Your task to perform on an android device: Show me popular games on the Play Store Image 0: 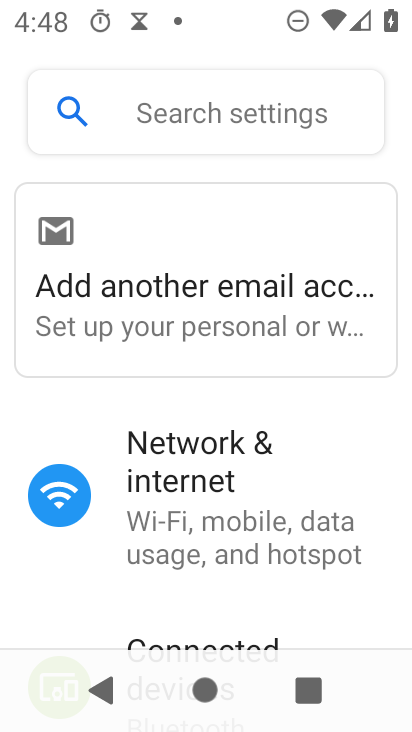
Step 0: press home button
Your task to perform on an android device: Show me popular games on the Play Store Image 1: 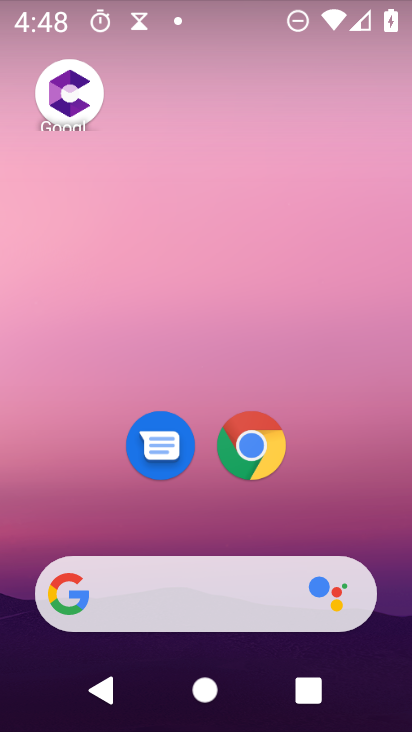
Step 1: drag from (240, 535) to (259, 22)
Your task to perform on an android device: Show me popular games on the Play Store Image 2: 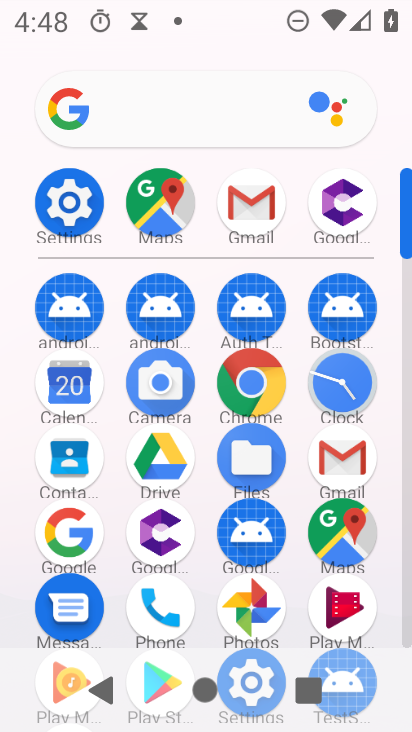
Step 2: drag from (213, 452) to (232, 170)
Your task to perform on an android device: Show me popular games on the Play Store Image 3: 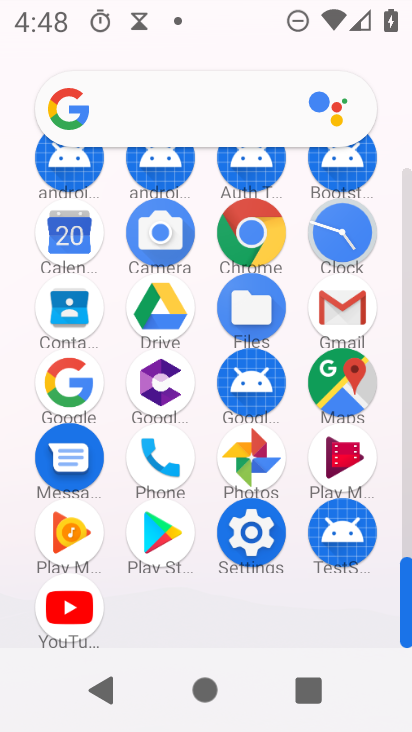
Step 3: click (160, 531)
Your task to perform on an android device: Show me popular games on the Play Store Image 4: 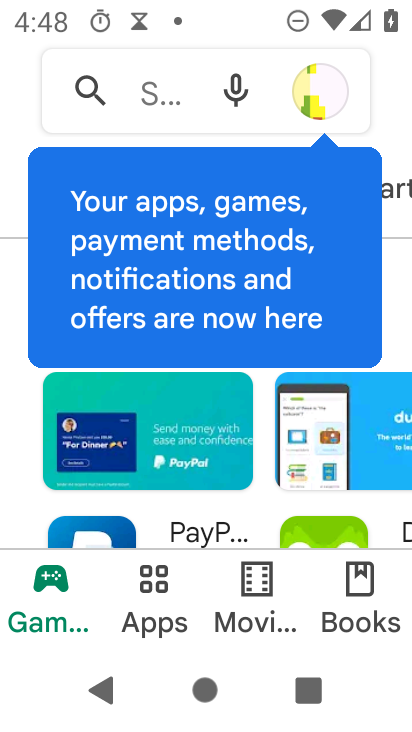
Step 4: click (188, 92)
Your task to perform on an android device: Show me popular games on the Play Store Image 5: 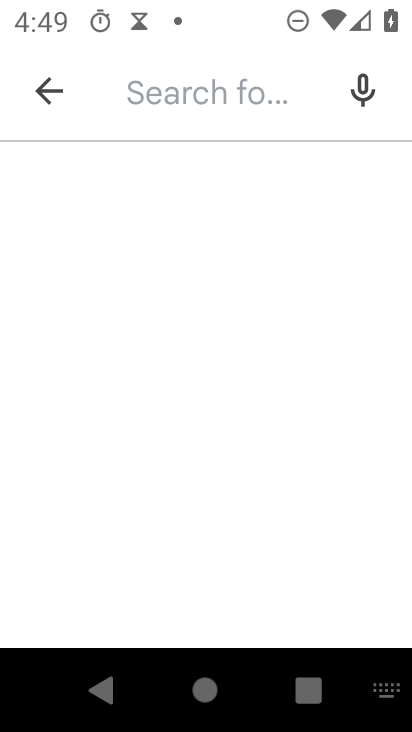
Step 5: type "popular"
Your task to perform on an android device: Show me popular games on the Play Store Image 6: 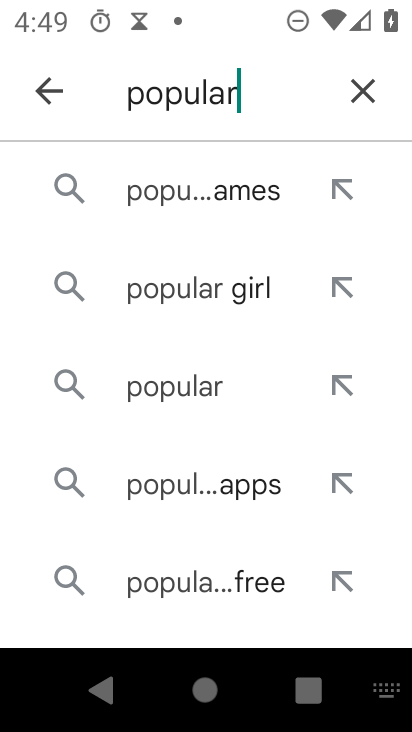
Step 6: click (232, 201)
Your task to perform on an android device: Show me popular games on the Play Store Image 7: 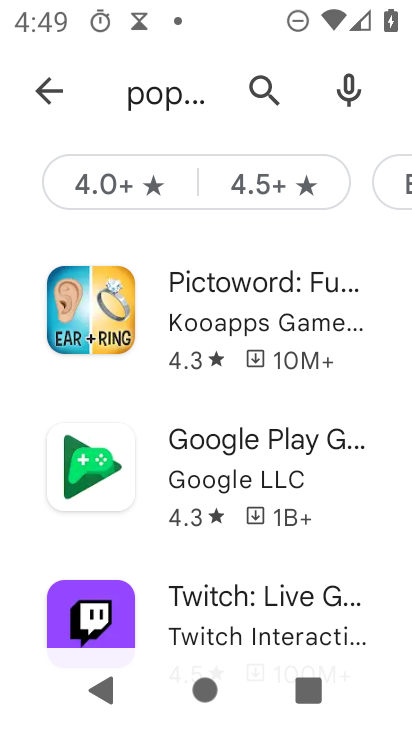
Step 7: task complete